Your task to perform on an android device: Show me the alarms in the clock app Image 0: 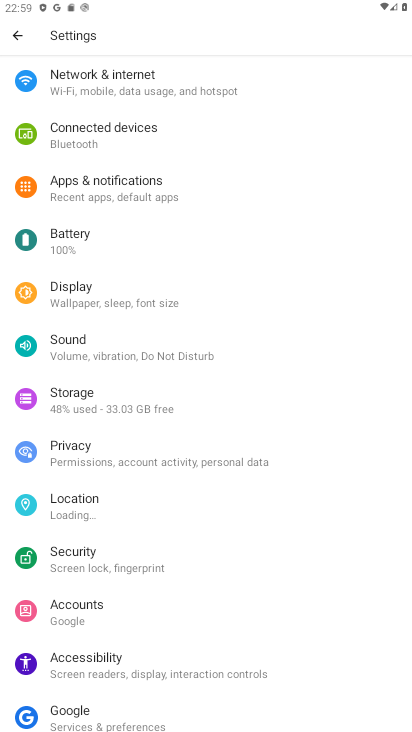
Step 0: press home button
Your task to perform on an android device: Show me the alarms in the clock app Image 1: 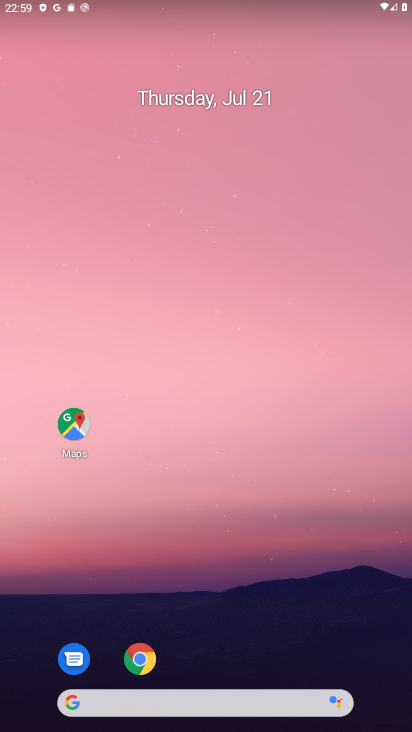
Step 1: drag from (179, 700) to (195, 115)
Your task to perform on an android device: Show me the alarms in the clock app Image 2: 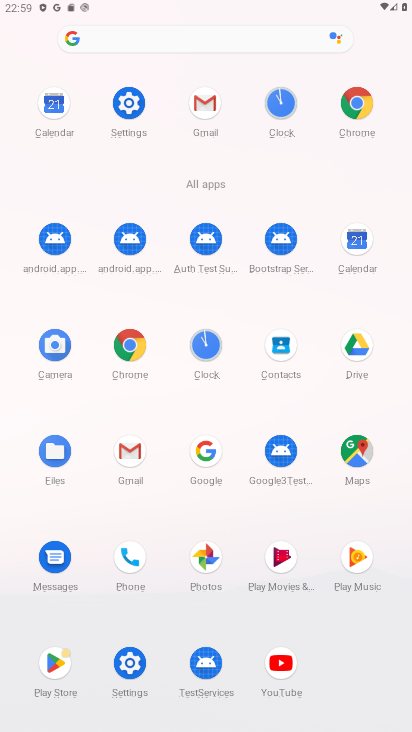
Step 2: click (281, 105)
Your task to perform on an android device: Show me the alarms in the clock app Image 3: 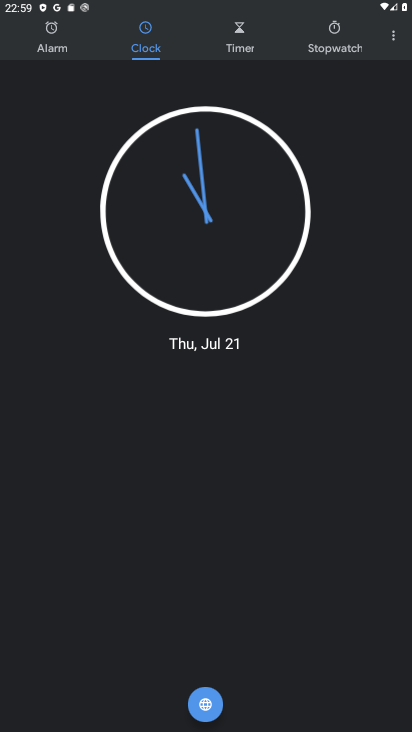
Step 3: click (58, 36)
Your task to perform on an android device: Show me the alarms in the clock app Image 4: 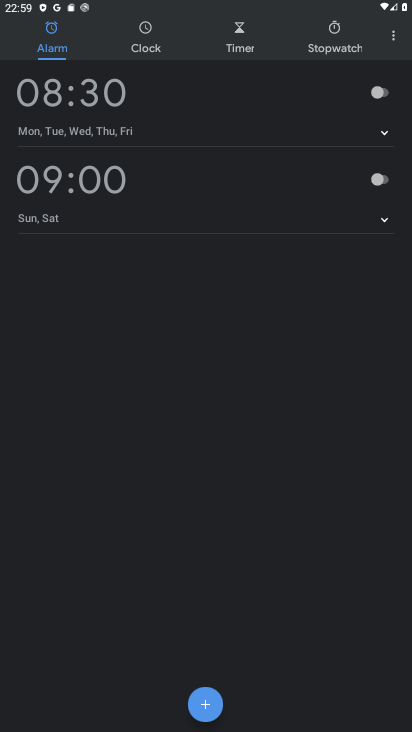
Step 4: click (211, 704)
Your task to perform on an android device: Show me the alarms in the clock app Image 5: 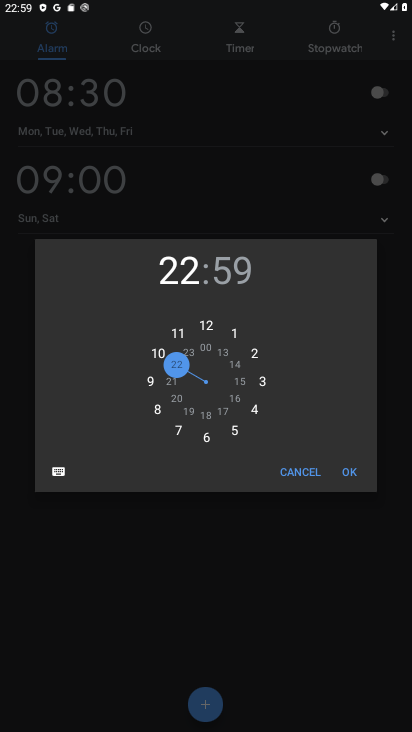
Step 5: click (209, 346)
Your task to perform on an android device: Show me the alarms in the clock app Image 6: 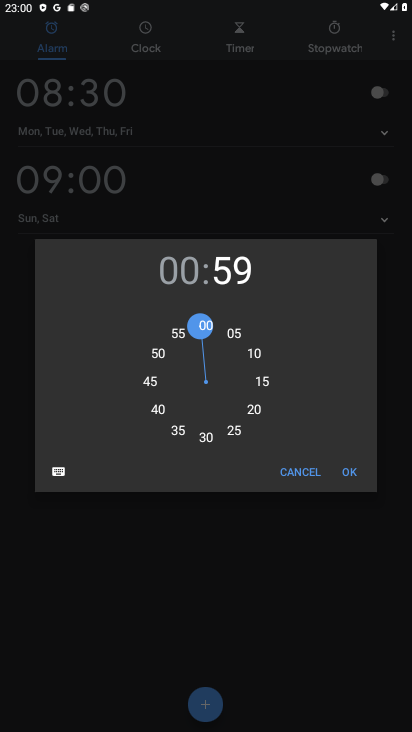
Step 6: click (164, 356)
Your task to perform on an android device: Show me the alarms in the clock app Image 7: 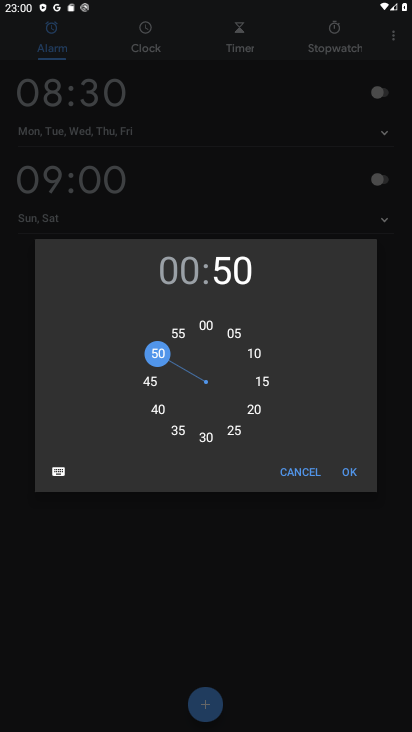
Step 7: click (351, 470)
Your task to perform on an android device: Show me the alarms in the clock app Image 8: 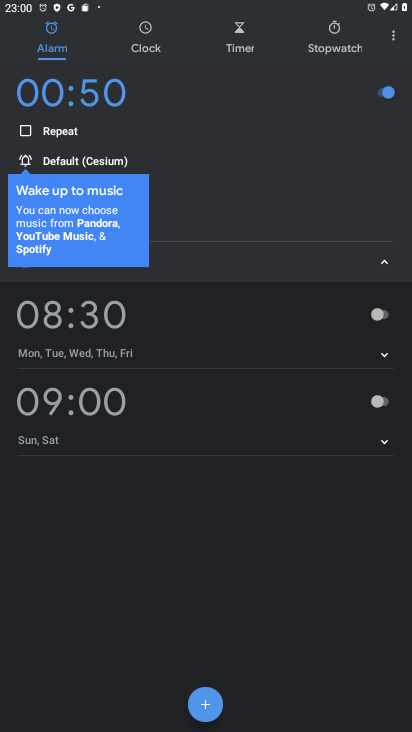
Step 8: task complete